Your task to perform on an android device: When is my next appointment? Image 0: 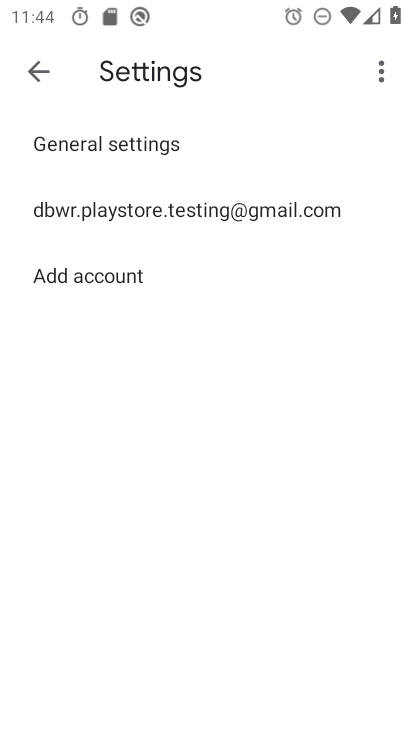
Step 0: press home button
Your task to perform on an android device: When is my next appointment? Image 1: 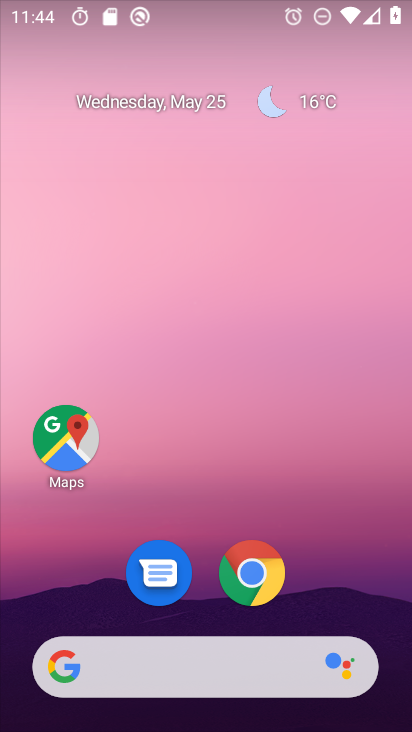
Step 1: drag from (366, 620) to (383, 0)
Your task to perform on an android device: When is my next appointment? Image 2: 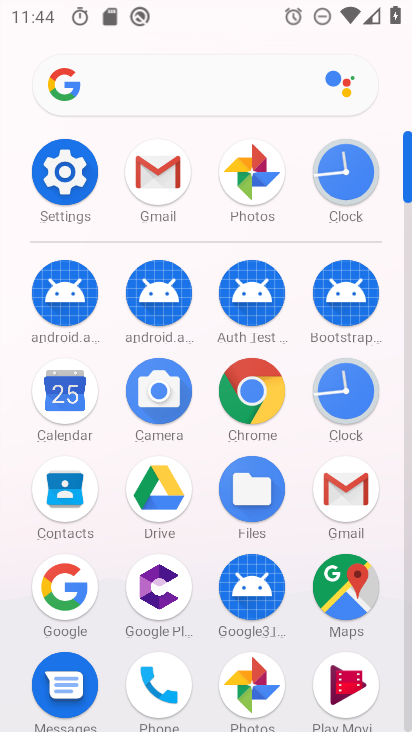
Step 2: click (64, 406)
Your task to perform on an android device: When is my next appointment? Image 3: 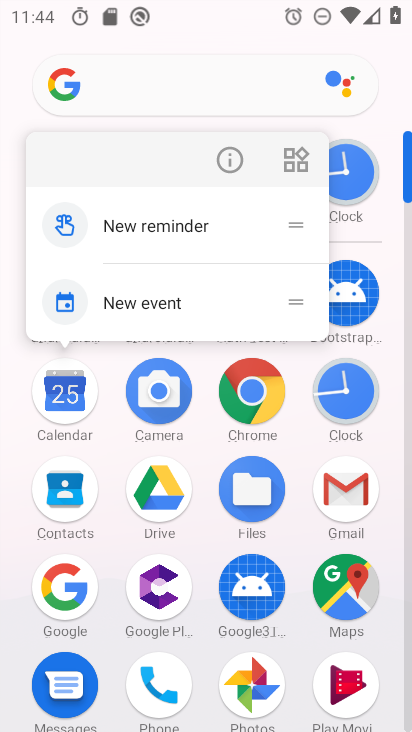
Step 3: click (67, 399)
Your task to perform on an android device: When is my next appointment? Image 4: 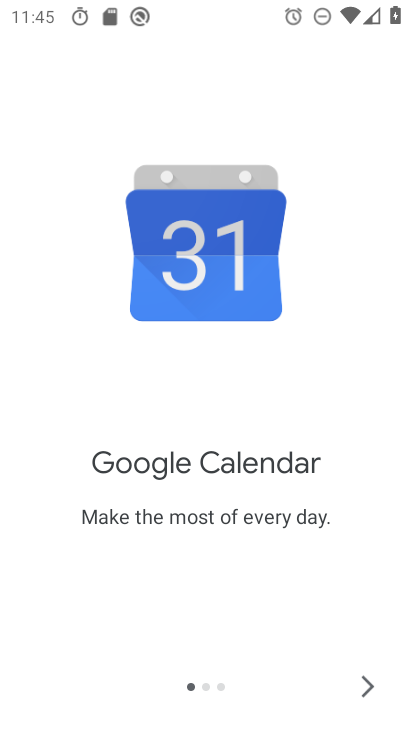
Step 4: click (362, 692)
Your task to perform on an android device: When is my next appointment? Image 5: 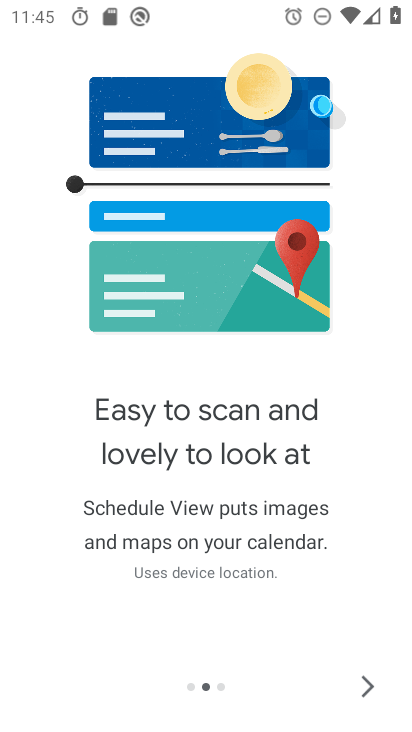
Step 5: click (362, 692)
Your task to perform on an android device: When is my next appointment? Image 6: 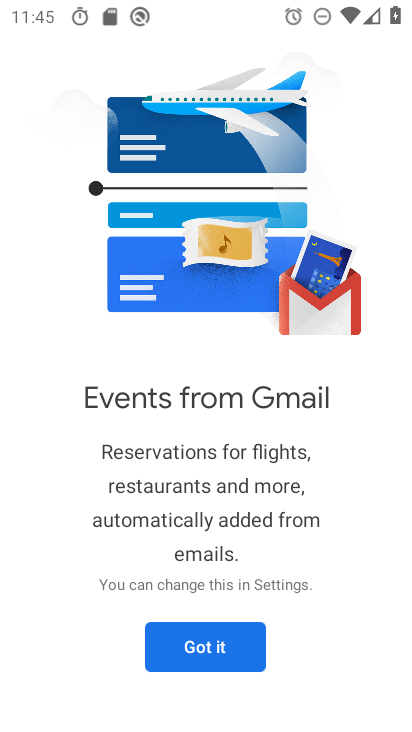
Step 6: click (207, 653)
Your task to perform on an android device: When is my next appointment? Image 7: 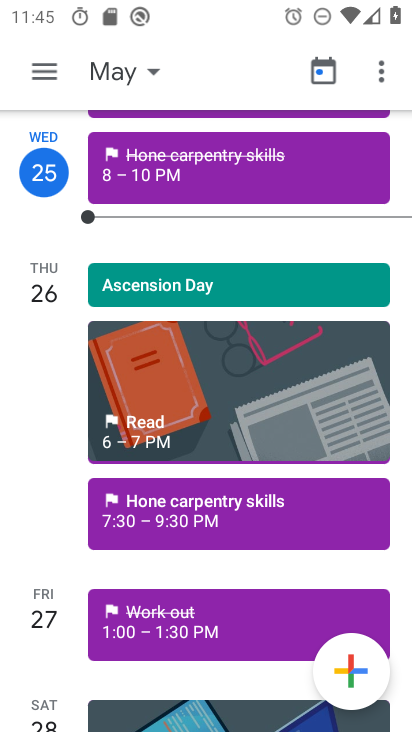
Step 7: drag from (228, 407) to (222, 166)
Your task to perform on an android device: When is my next appointment? Image 8: 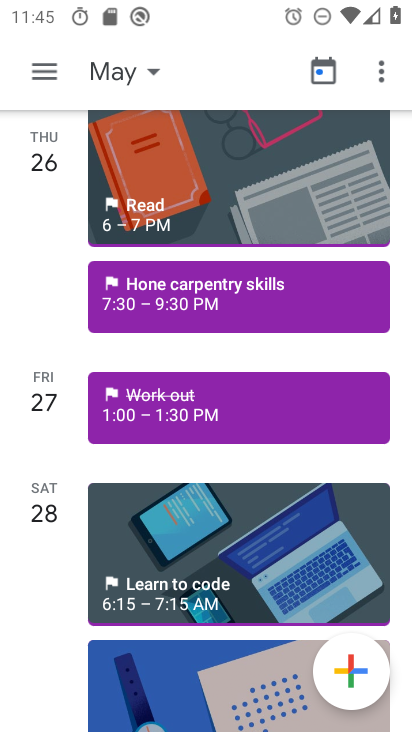
Step 8: drag from (199, 461) to (199, 179)
Your task to perform on an android device: When is my next appointment? Image 9: 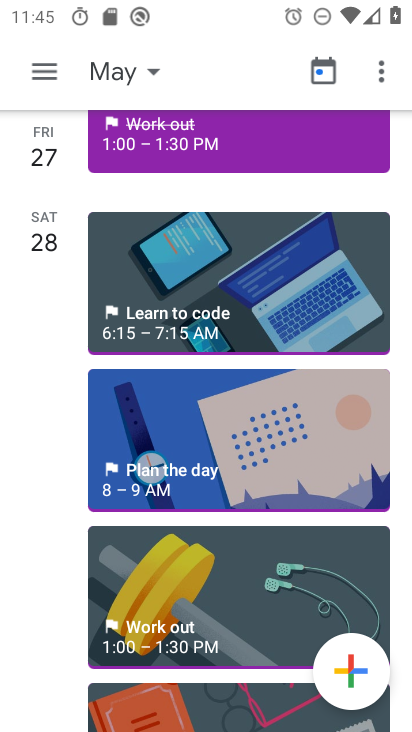
Step 9: drag from (194, 493) to (218, 192)
Your task to perform on an android device: When is my next appointment? Image 10: 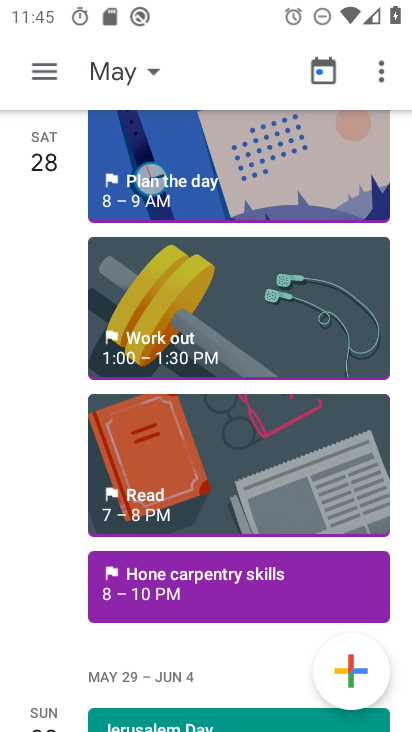
Step 10: drag from (180, 512) to (210, 166)
Your task to perform on an android device: When is my next appointment? Image 11: 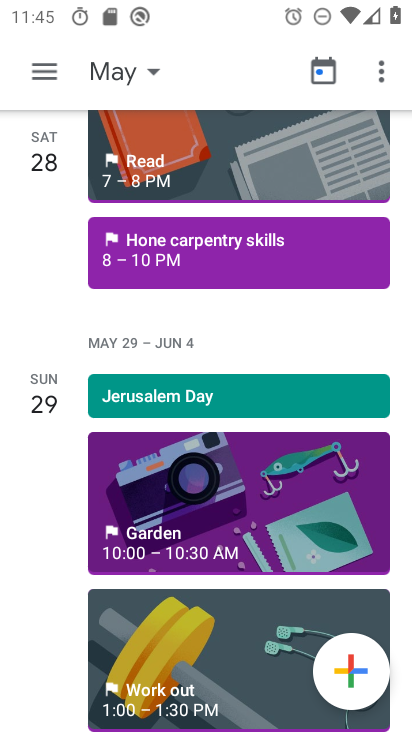
Step 11: drag from (179, 518) to (227, 125)
Your task to perform on an android device: When is my next appointment? Image 12: 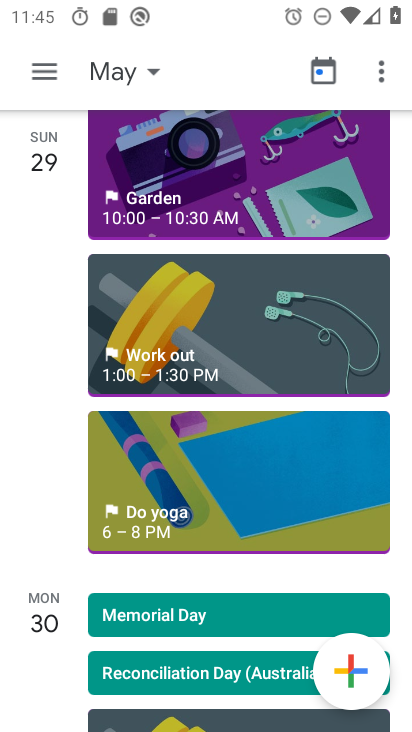
Step 12: drag from (187, 477) to (207, 116)
Your task to perform on an android device: When is my next appointment? Image 13: 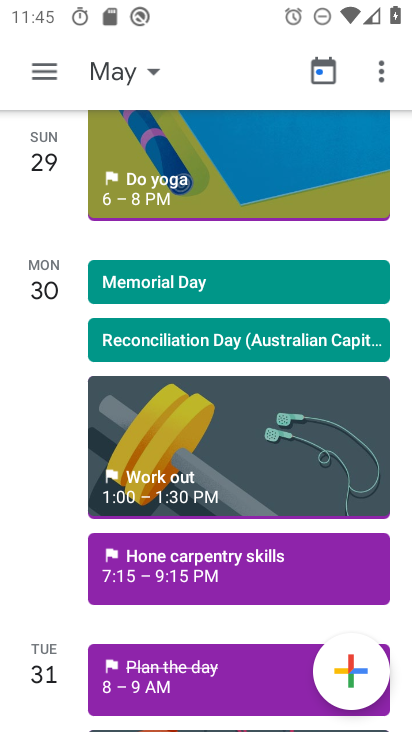
Step 13: drag from (203, 507) to (239, 139)
Your task to perform on an android device: When is my next appointment? Image 14: 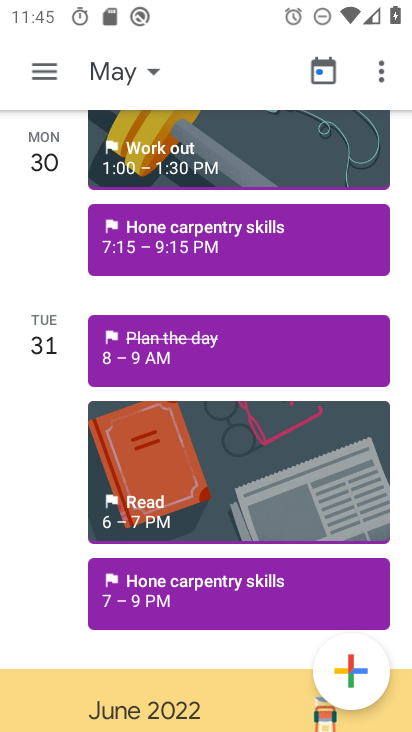
Step 14: drag from (211, 479) to (222, 104)
Your task to perform on an android device: When is my next appointment? Image 15: 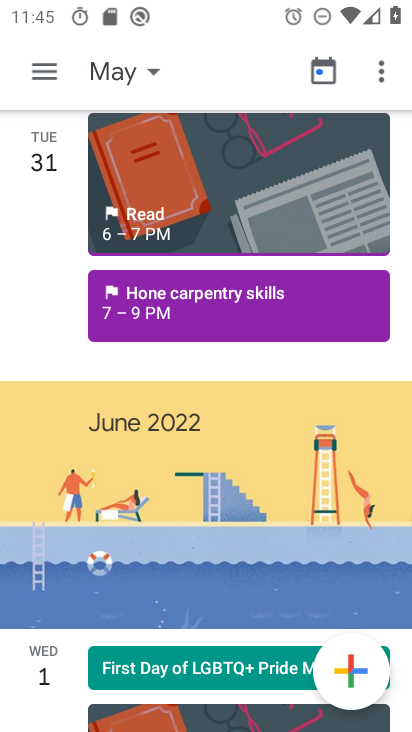
Step 15: drag from (158, 573) to (181, 180)
Your task to perform on an android device: When is my next appointment? Image 16: 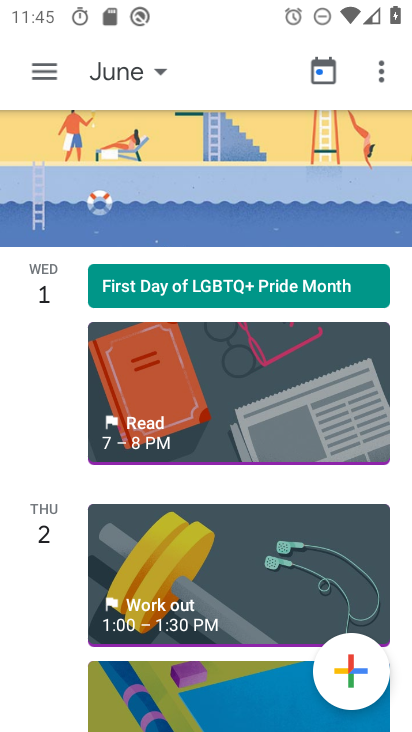
Step 16: drag from (167, 556) to (190, 176)
Your task to perform on an android device: When is my next appointment? Image 17: 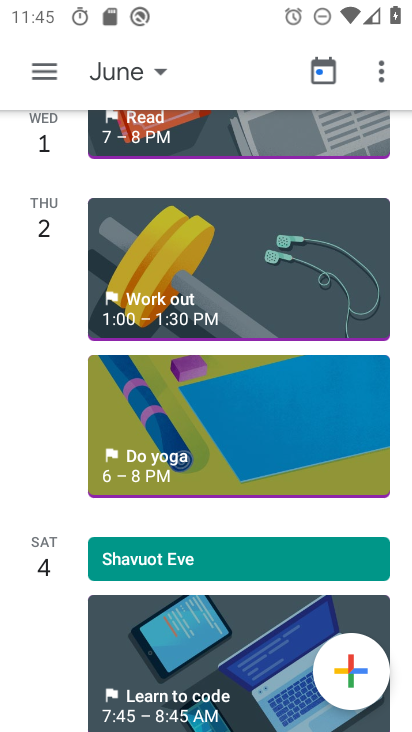
Step 17: drag from (175, 565) to (210, 202)
Your task to perform on an android device: When is my next appointment? Image 18: 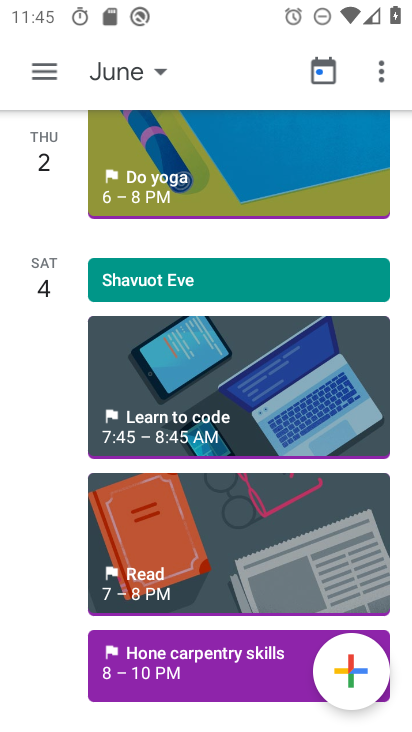
Step 18: drag from (197, 513) to (208, 193)
Your task to perform on an android device: When is my next appointment? Image 19: 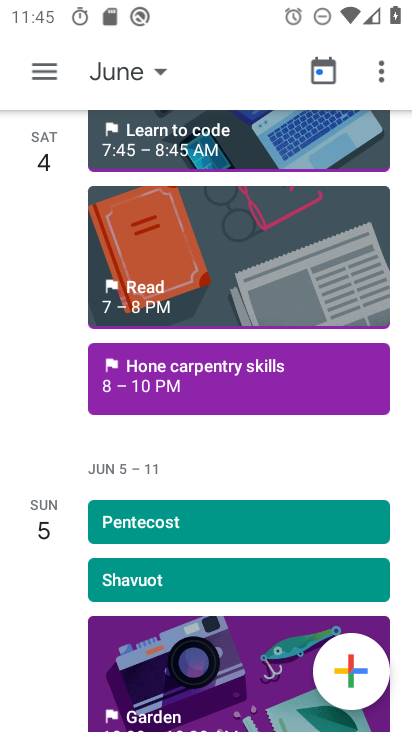
Step 19: drag from (192, 596) to (221, 204)
Your task to perform on an android device: When is my next appointment? Image 20: 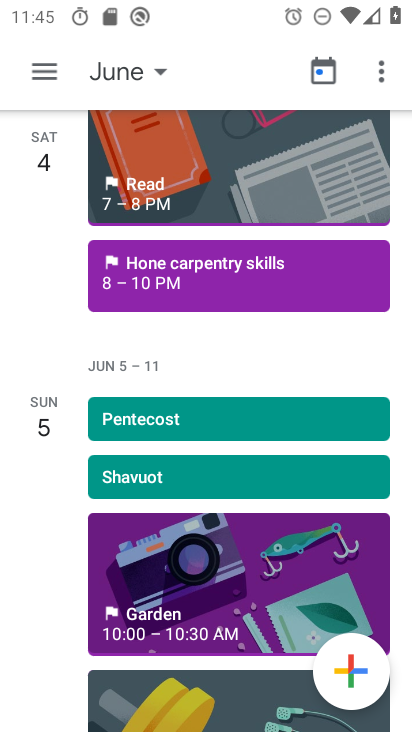
Step 20: drag from (177, 583) to (216, 173)
Your task to perform on an android device: When is my next appointment? Image 21: 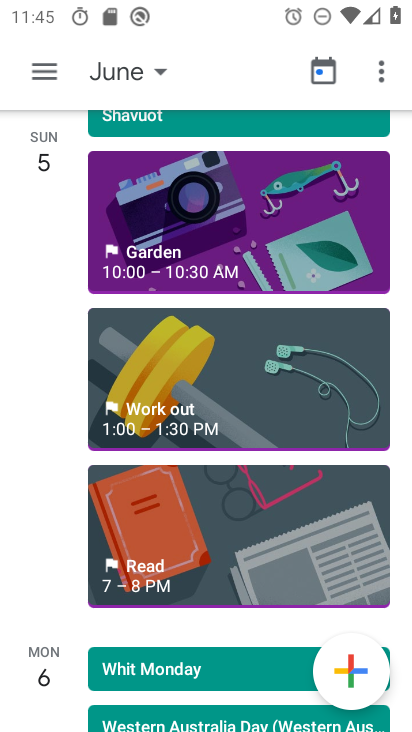
Step 21: drag from (174, 558) to (200, 153)
Your task to perform on an android device: When is my next appointment? Image 22: 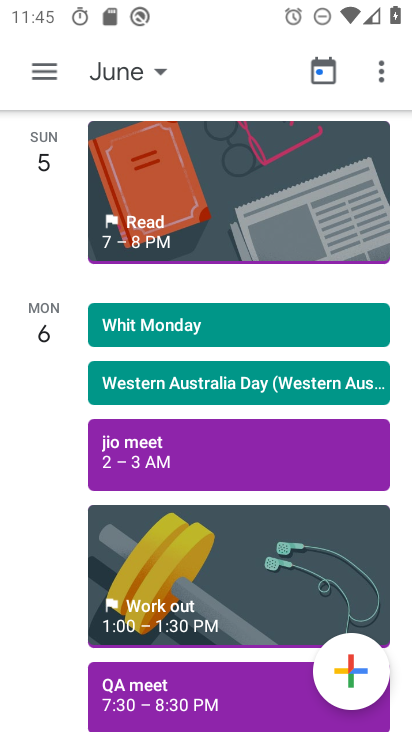
Step 22: click (189, 456)
Your task to perform on an android device: When is my next appointment? Image 23: 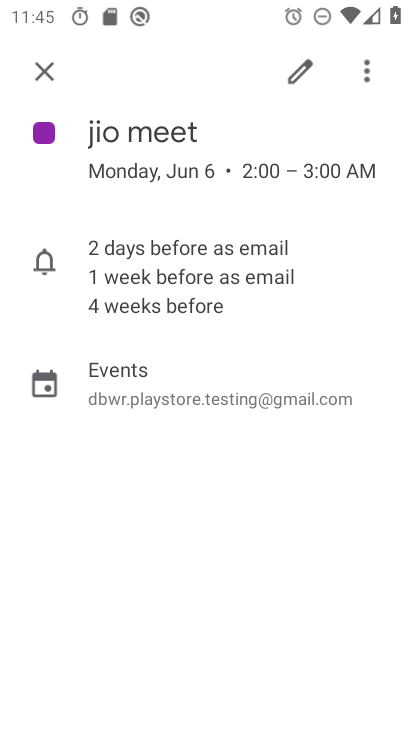
Step 23: task complete